Your task to perform on an android device: Go to sound settings Image 0: 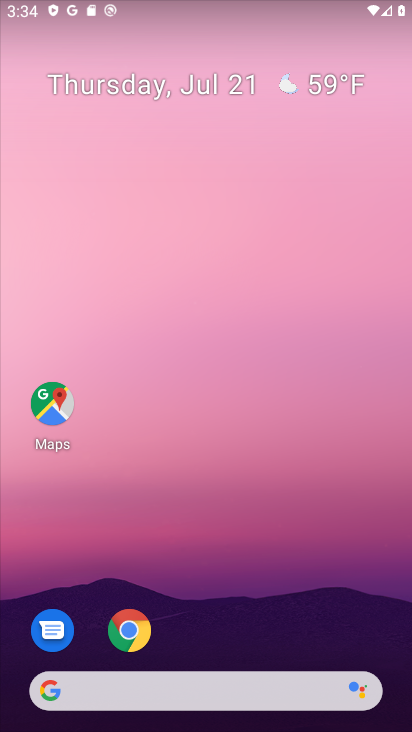
Step 0: click (182, 231)
Your task to perform on an android device: Go to sound settings Image 1: 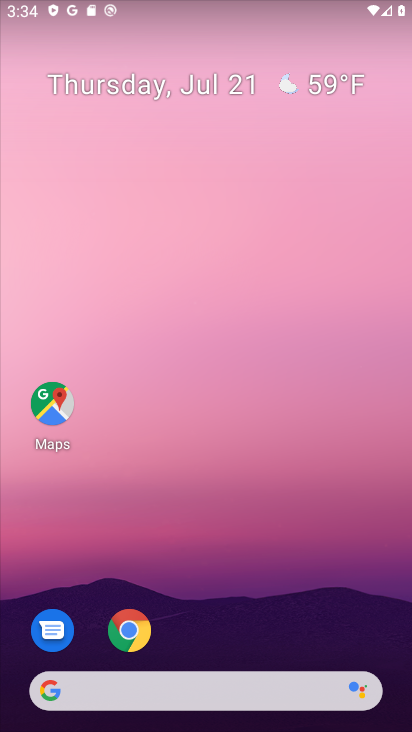
Step 1: drag from (165, 529) to (144, 287)
Your task to perform on an android device: Go to sound settings Image 2: 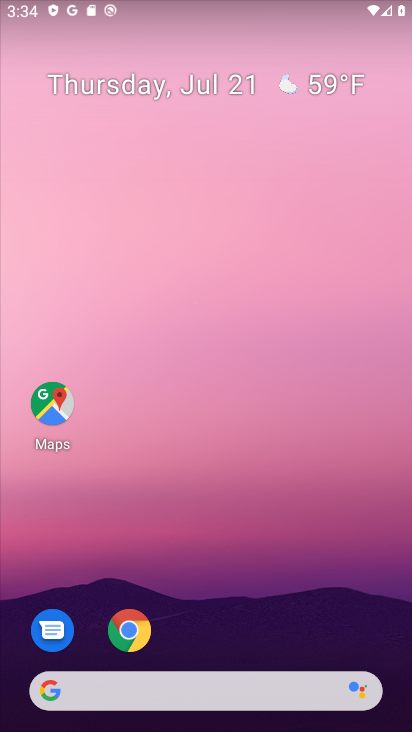
Step 2: drag from (246, 555) to (222, 220)
Your task to perform on an android device: Go to sound settings Image 3: 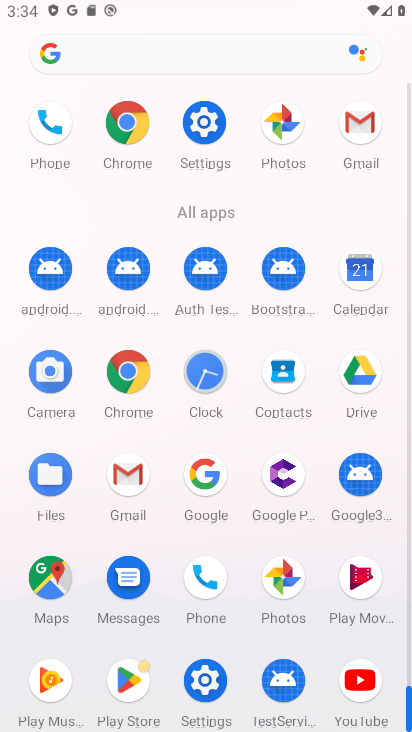
Step 3: drag from (254, 408) to (233, 121)
Your task to perform on an android device: Go to sound settings Image 4: 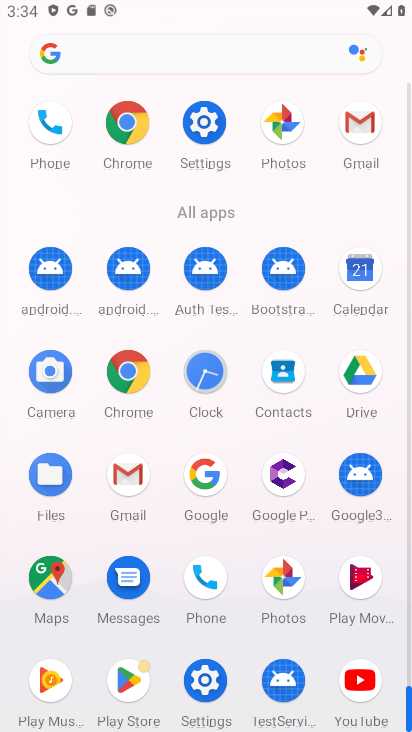
Step 4: click (214, 120)
Your task to perform on an android device: Go to sound settings Image 5: 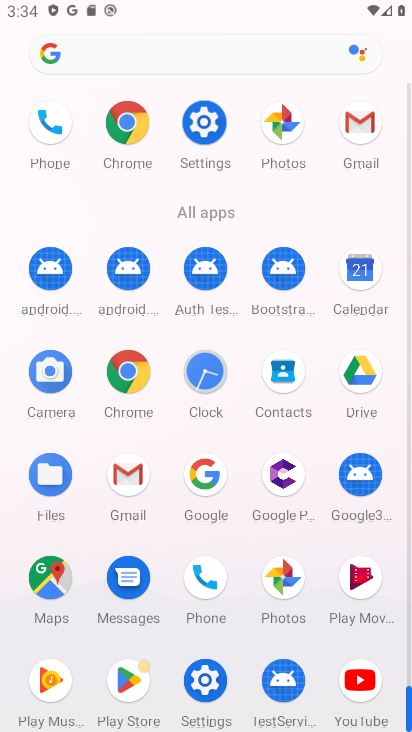
Step 5: click (210, 121)
Your task to perform on an android device: Go to sound settings Image 6: 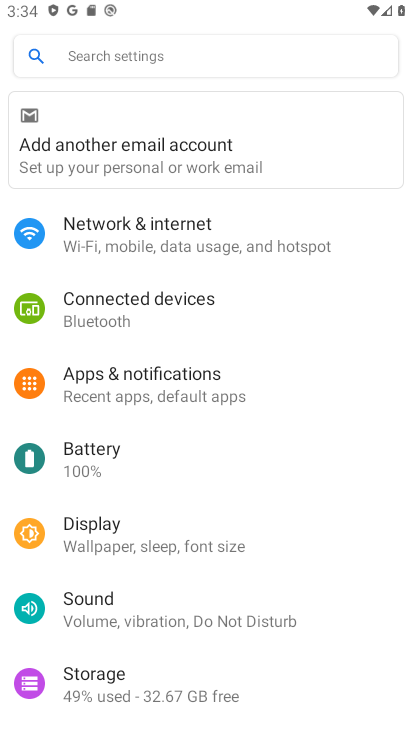
Step 6: click (108, 597)
Your task to perform on an android device: Go to sound settings Image 7: 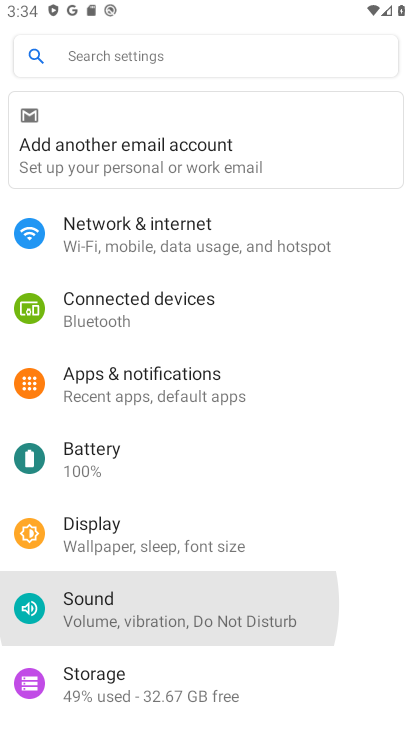
Step 7: click (108, 597)
Your task to perform on an android device: Go to sound settings Image 8: 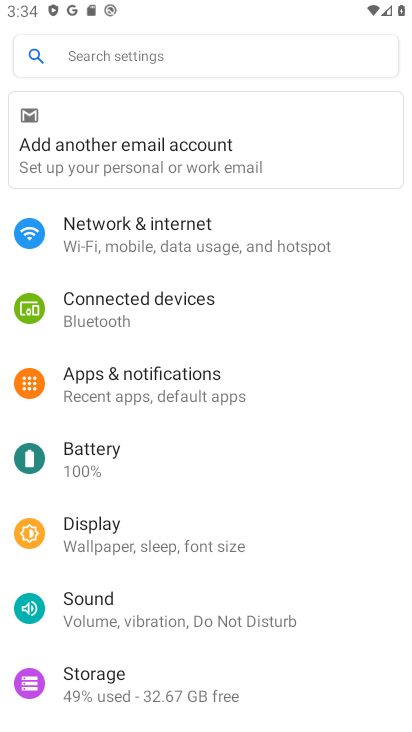
Step 8: click (107, 597)
Your task to perform on an android device: Go to sound settings Image 9: 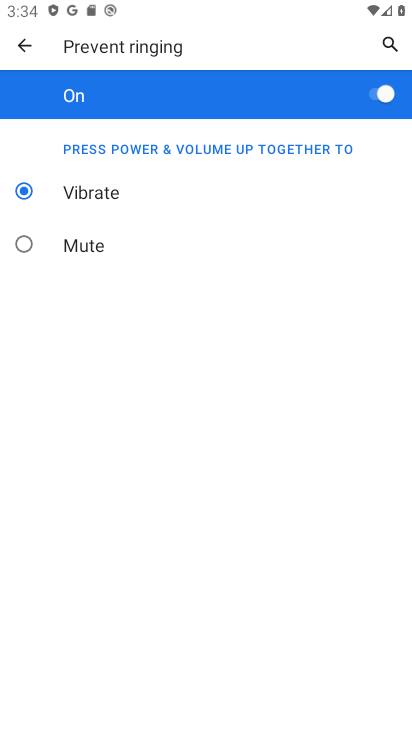
Step 9: click (13, 42)
Your task to perform on an android device: Go to sound settings Image 10: 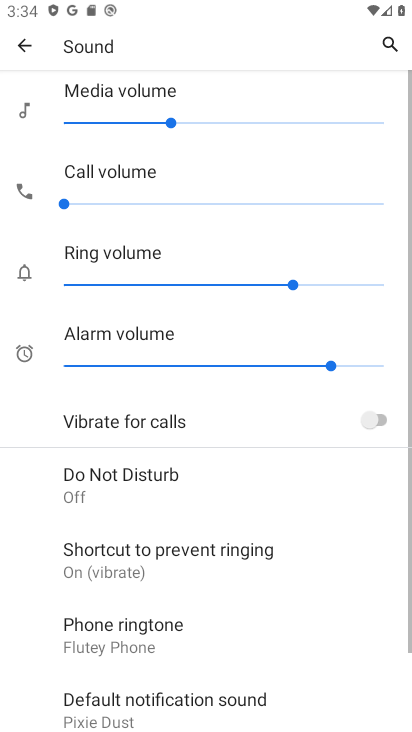
Step 10: task complete